Your task to perform on an android device: Open Google Maps and go to "Timeline" Image 0: 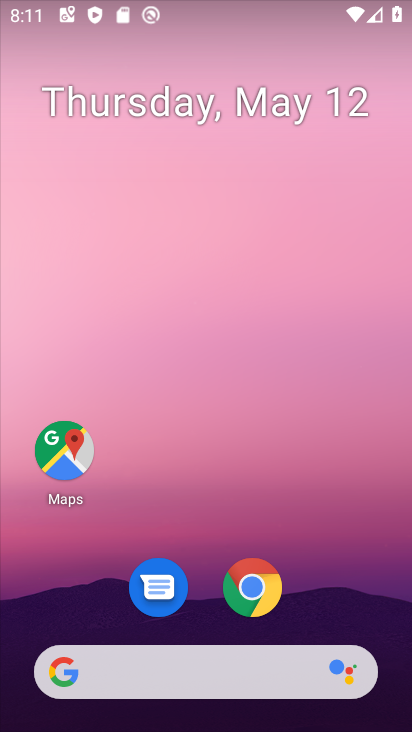
Step 0: drag from (325, 599) to (247, 235)
Your task to perform on an android device: Open Google Maps and go to "Timeline" Image 1: 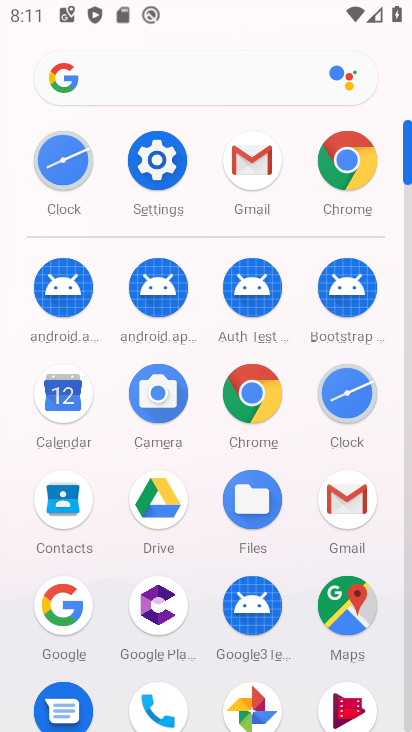
Step 1: click (335, 593)
Your task to perform on an android device: Open Google Maps and go to "Timeline" Image 2: 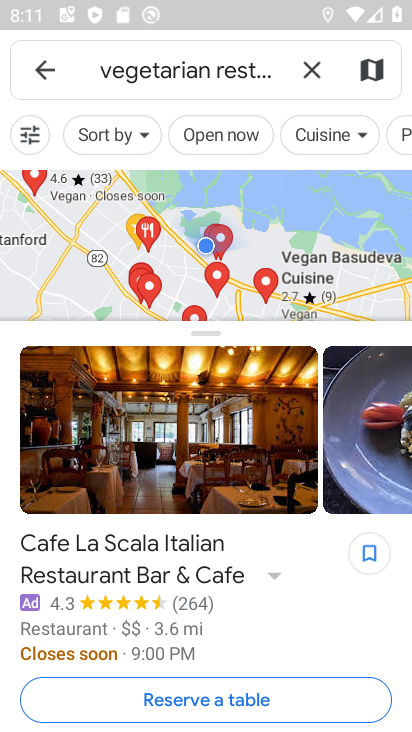
Step 2: click (305, 69)
Your task to perform on an android device: Open Google Maps and go to "Timeline" Image 3: 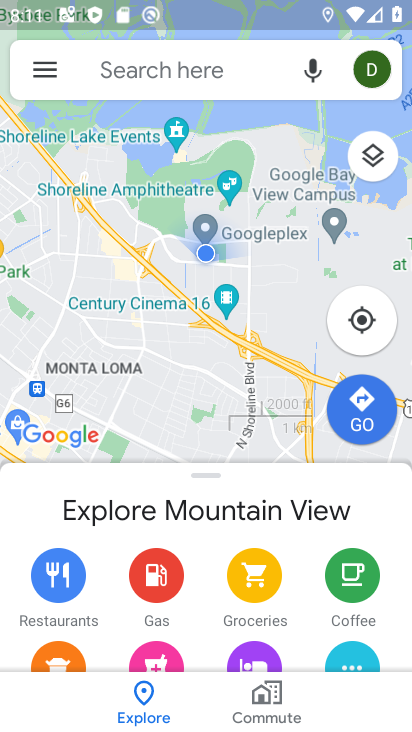
Step 3: click (44, 66)
Your task to perform on an android device: Open Google Maps and go to "Timeline" Image 4: 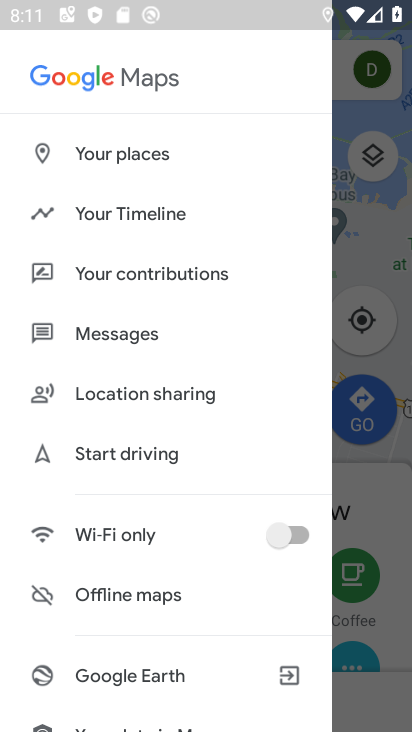
Step 4: click (114, 209)
Your task to perform on an android device: Open Google Maps and go to "Timeline" Image 5: 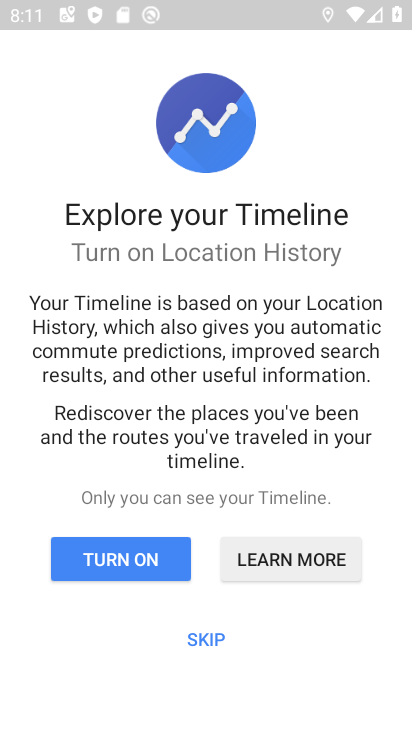
Step 5: click (214, 623)
Your task to perform on an android device: Open Google Maps and go to "Timeline" Image 6: 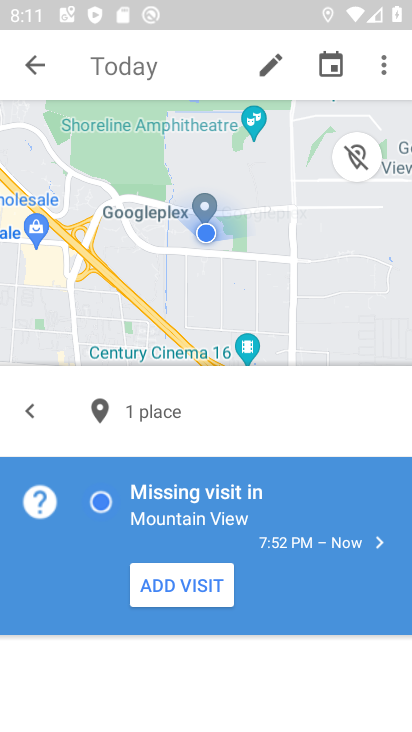
Step 6: task complete